Your task to perform on an android device: check the backup settings in the google photos Image 0: 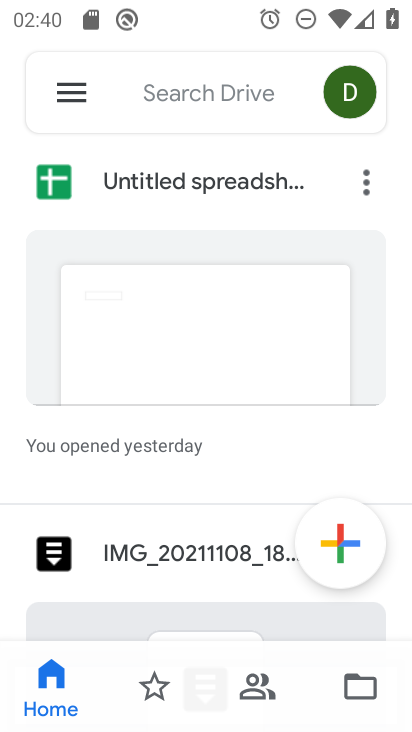
Step 0: press home button
Your task to perform on an android device: check the backup settings in the google photos Image 1: 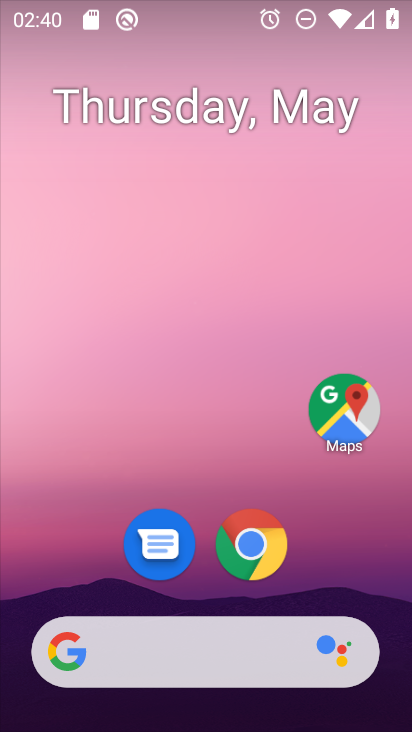
Step 1: drag from (341, 577) to (235, 71)
Your task to perform on an android device: check the backup settings in the google photos Image 2: 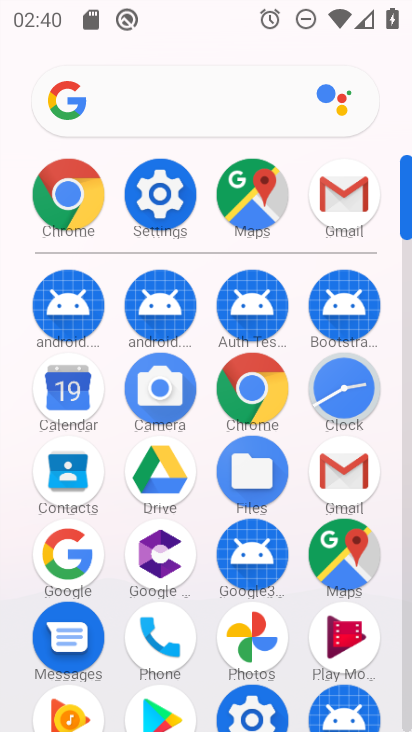
Step 2: click (254, 637)
Your task to perform on an android device: check the backup settings in the google photos Image 3: 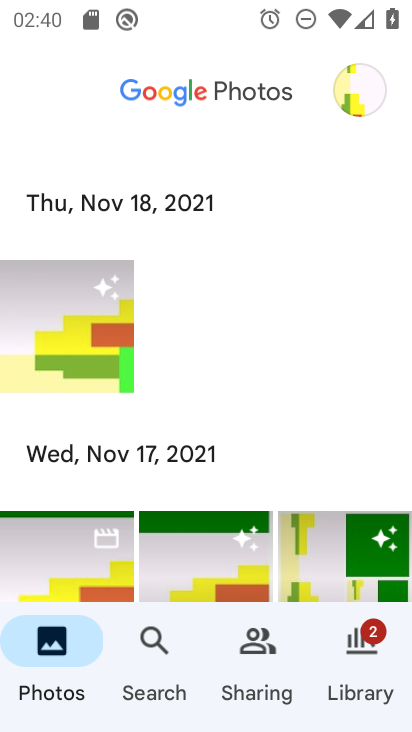
Step 3: click (364, 108)
Your task to perform on an android device: check the backup settings in the google photos Image 4: 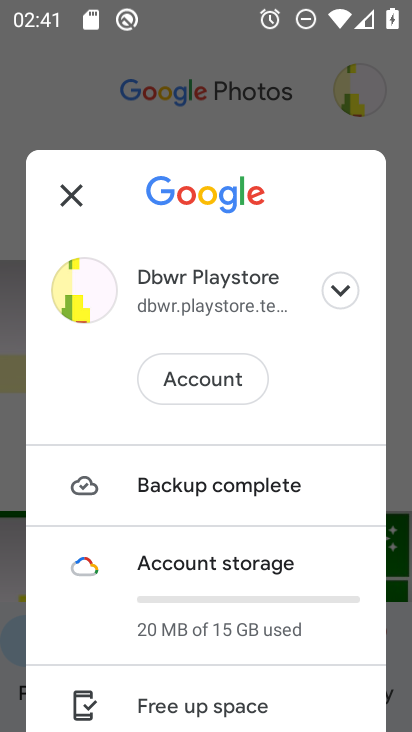
Step 4: drag from (307, 621) to (326, 479)
Your task to perform on an android device: check the backup settings in the google photos Image 5: 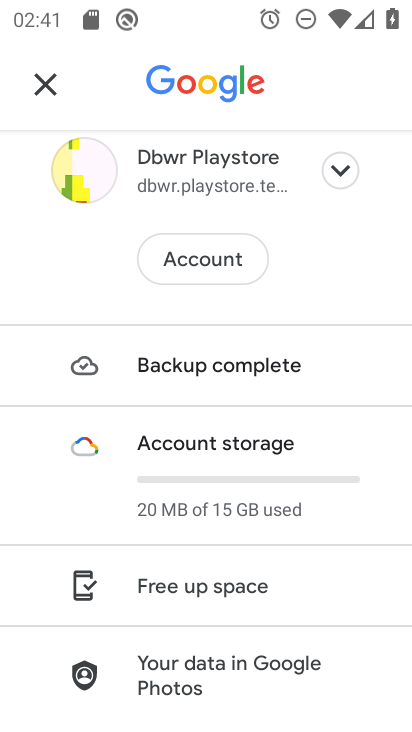
Step 5: drag from (304, 697) to (311, 525)
Your task to perform on an android device: check the backup settings in the google photos Image 6: 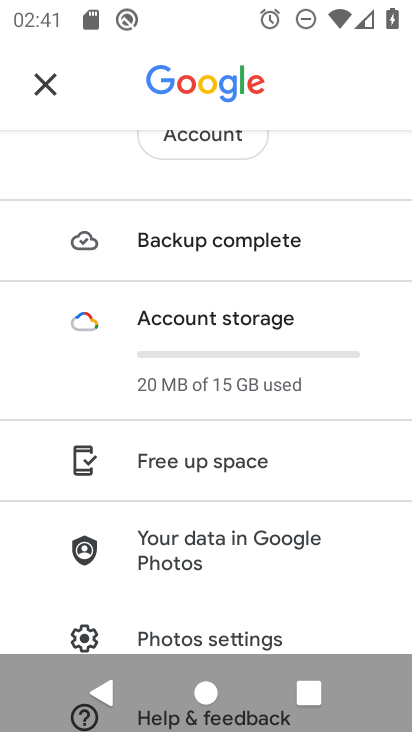
Step 6: drag from (314, 634) to (317, 465)
Your task to perform on an android device: check the backup settings in the google photos Image 7: 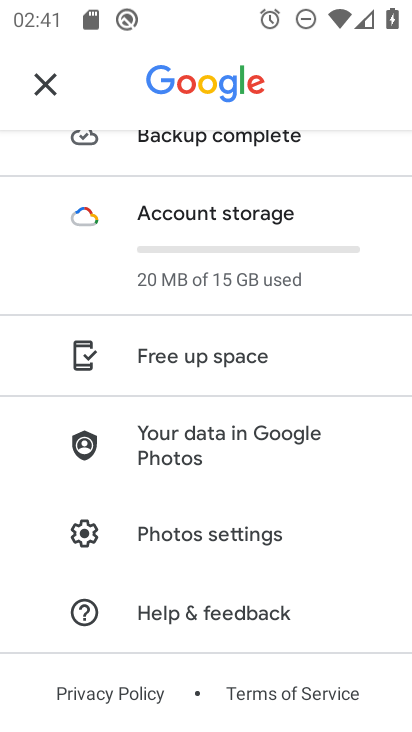
Step 7: drag from (327, 622) to (346, 493)
Your task to perform on an android device: check the backup settings in the google photos Image 8: 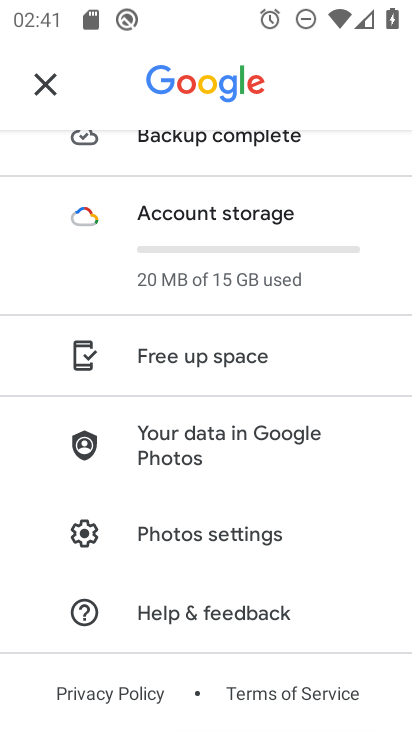
Step 8: click (278, 534)
Your task to perform on an android device: check the backup settings in the google photos Image 9: 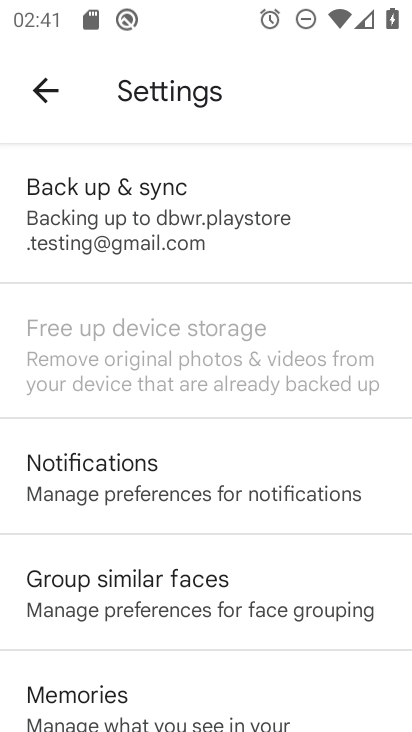
Step 9: click (161, 226)
Your task to perform on an android device: check the backup settings in the google photos Image 10: 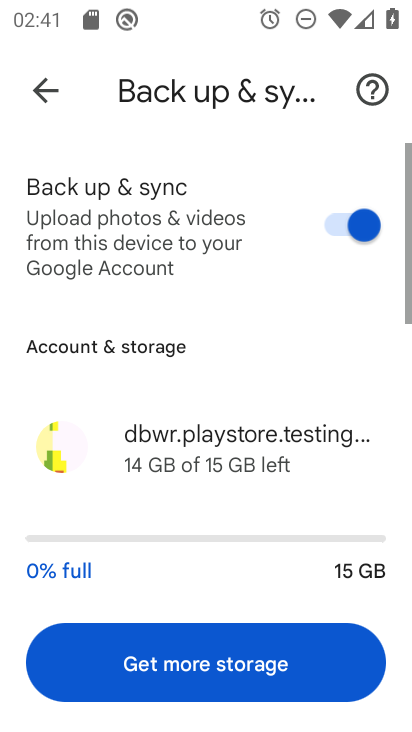
Step 10: task complete